Your task to perform on an android device: turn on improve location accuracy Image 0: 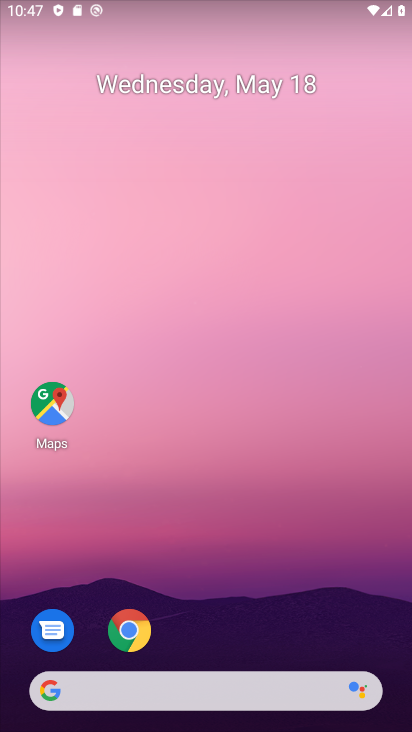
Step 0: drag from (271, 575) to (262, 44)
Your task to perform on an android device: turn on improve location accuracy Image 1: 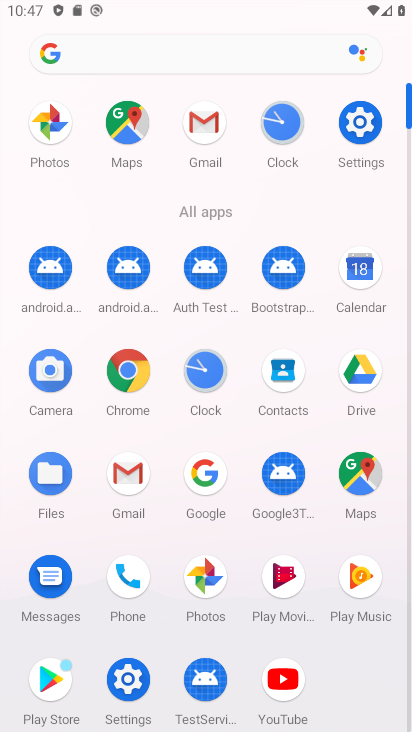
Step 1: click (133, 693)
Your task to perform on an android device: turn on improve location accuracy Image 2: 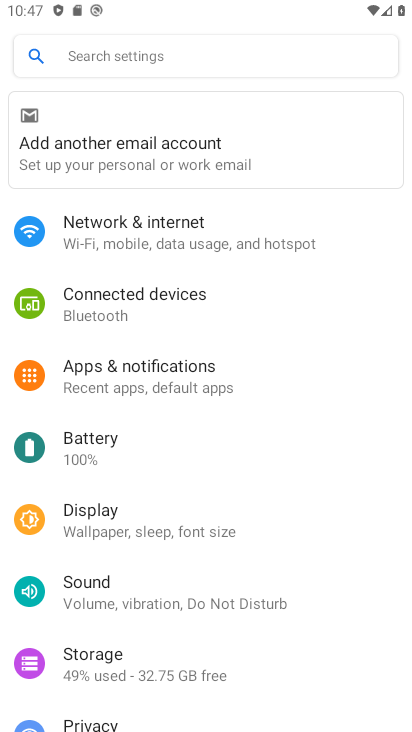
Step 2: drag from (151, 678) to (145, 431)
Your task to perform on an android device: turn on improve location accuracy Image 3: 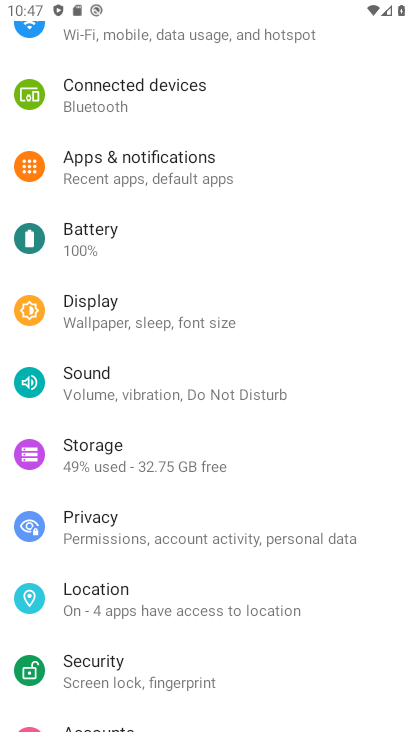
Step 3: click (163, 607)
Your task to perform on an android device: turn on improve location accuracy Image 4: 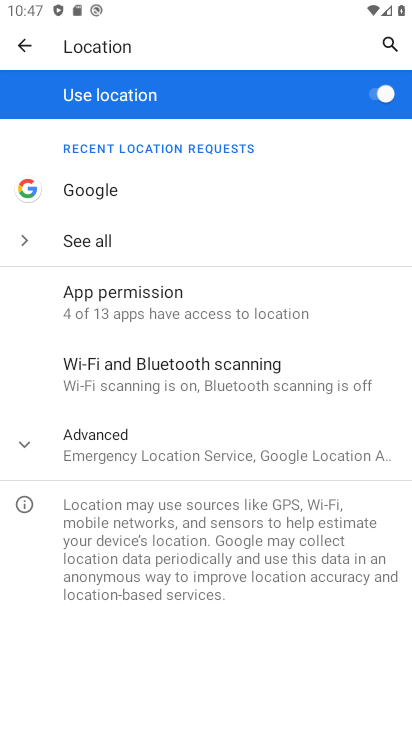
Step 4: click (140, 436)
Your task to perform on an android device: turn on improve location accuracy Image 5: 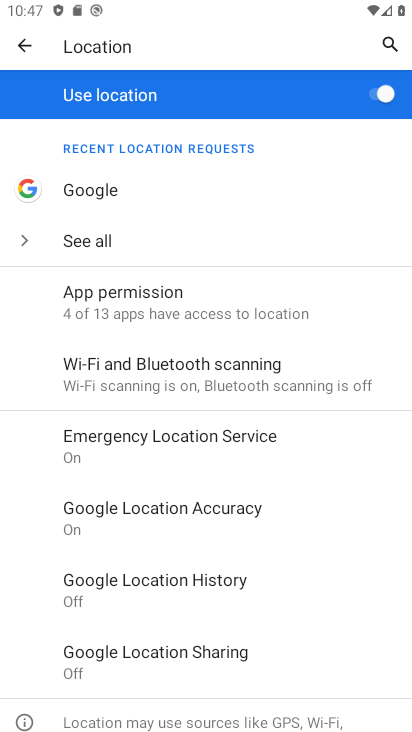
Step 5: click (196, 513)
Your task to perform on an android device: turn on improve location accuracy Image 6: 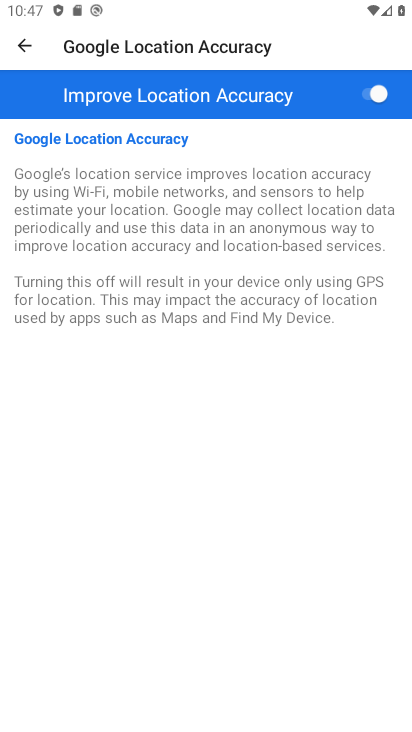
Step 6: task complete